Your task to perform on an android device: Is it going to rain this weekend? Image 0: 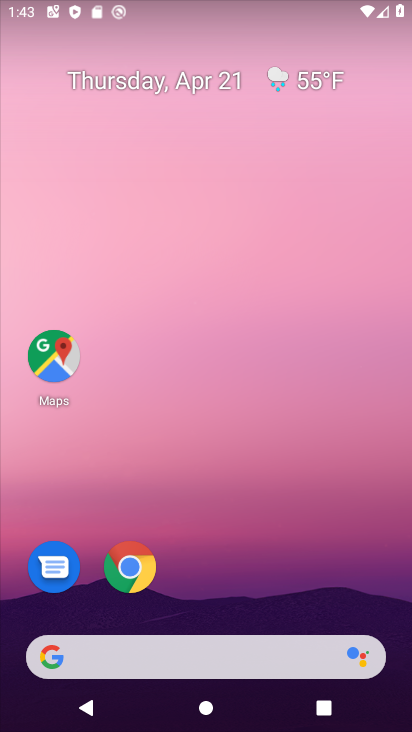
Step 0: drag from (222, 622) to (273, 130)
Your task to perform on an android device: Is it going to rain this weekend? Image 1: 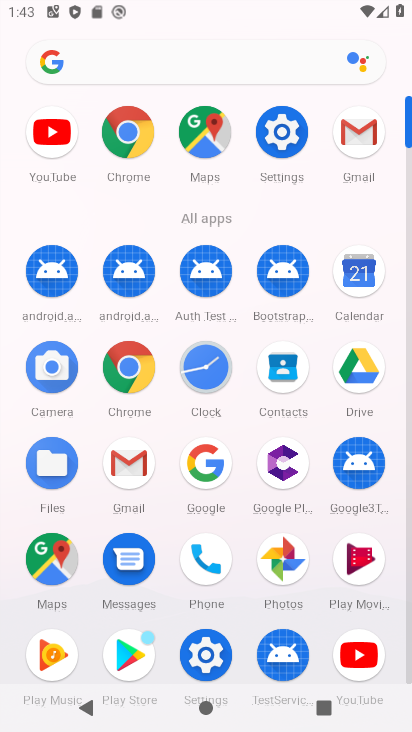
Step 1: press back button
Your task to perform on an android device: Is it going to rain this weekend? Image 2: 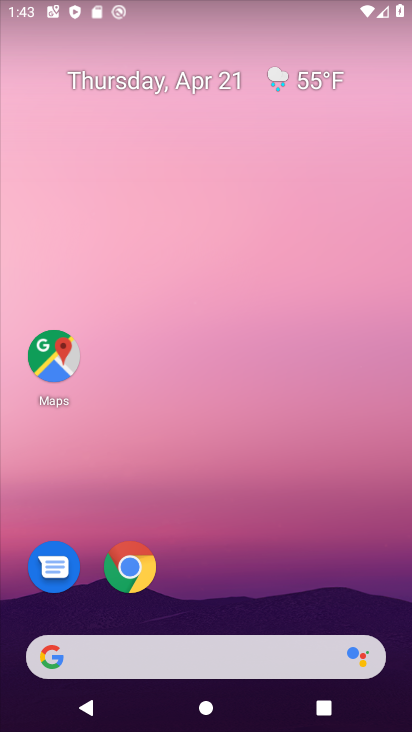
Step 2: click (308, 77)
Your task to perform on an android device: Is it going to rain this weekend? Image 3: 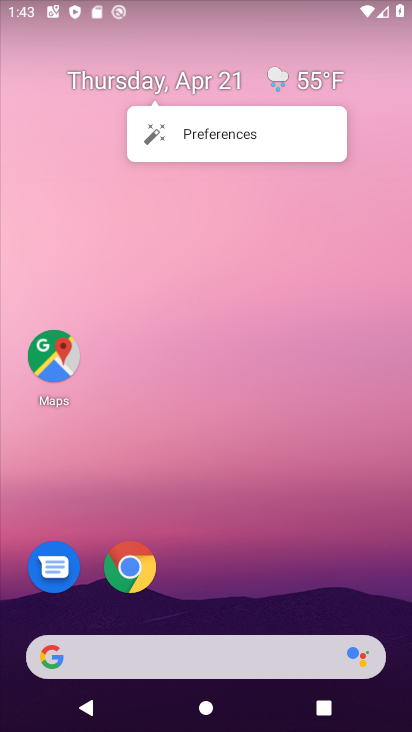
Step 3: click (316, 80)
Your task to perform on an android device: Is it going to rain this weekend? Image 4: 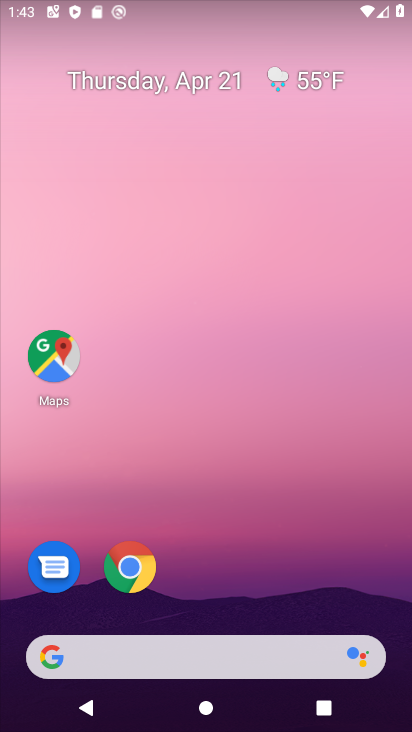
Step 4: click (298, 64)
Your task to perform on an android device: Is it going to rain this weekend? Image 5: 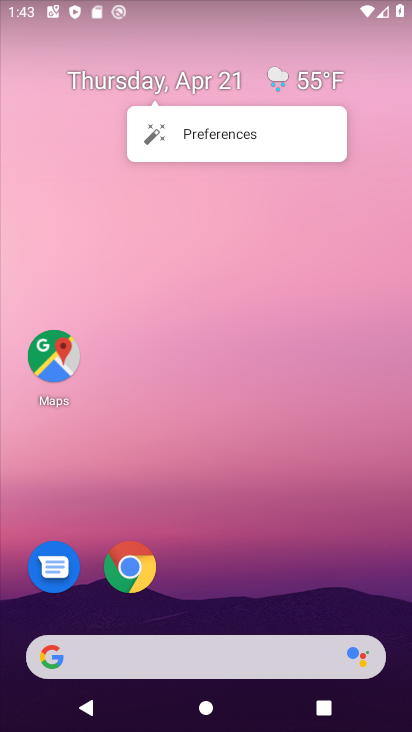
Step 5: click (265, 72)
Your task to perform on an android device: Is it going to rain this weekend? Image 6: 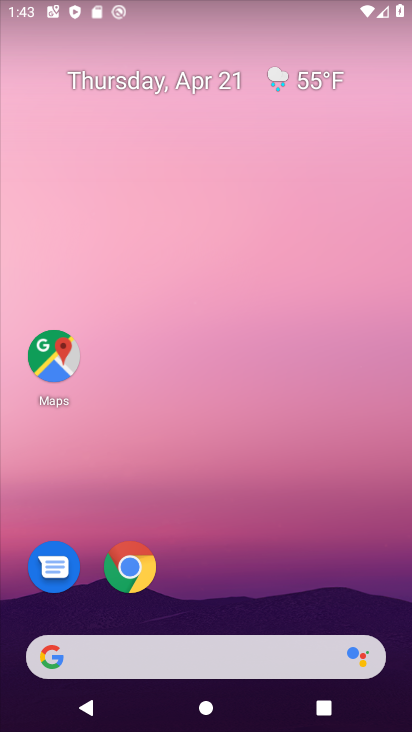
Step 6: click (304, 75)
Your task to perform on an android device: Is it going to rain this weekend? Image 7: 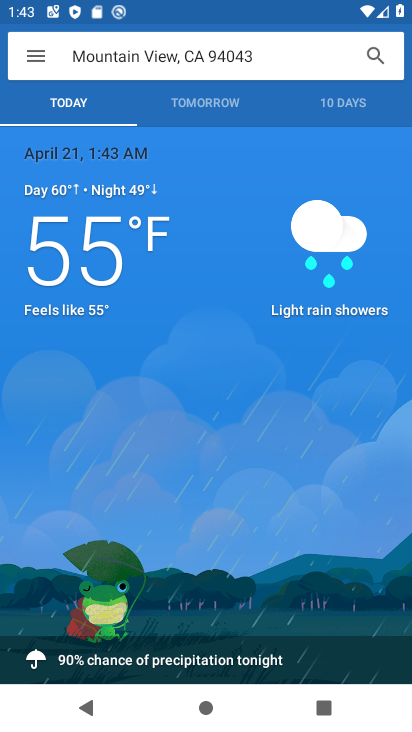
Step 7: click (348, 112)
Your task to perform on an android device: Is it going to rain this weekend? Image 8: 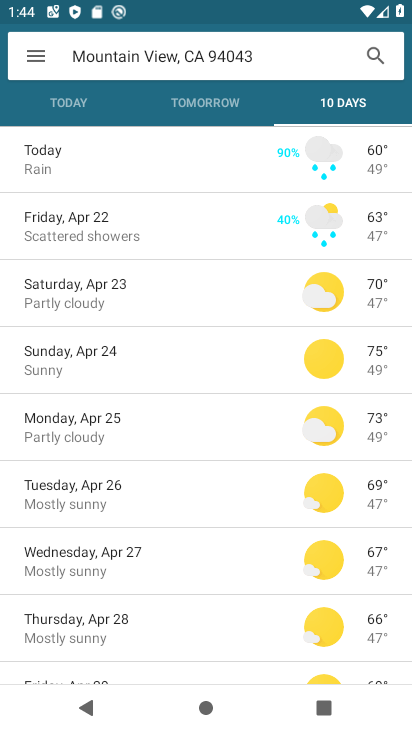
Step 8: task complete